Your task to perform on an android device: Open wifi settings Image 0: 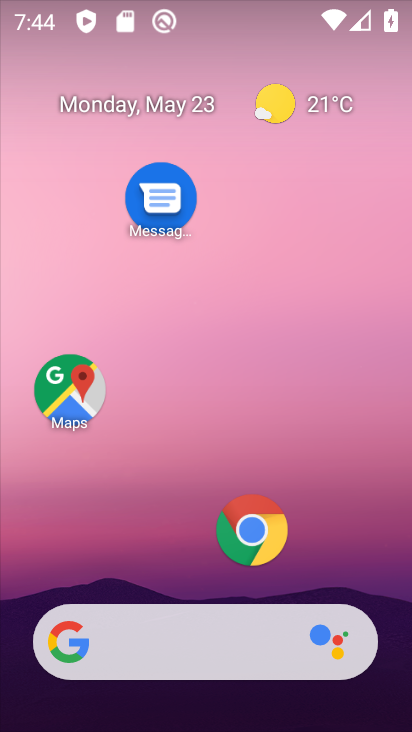
Step 0: drag from (225, 12) to (9, 695)
Your task to perform on an android device: Open wifi settings Image 1: 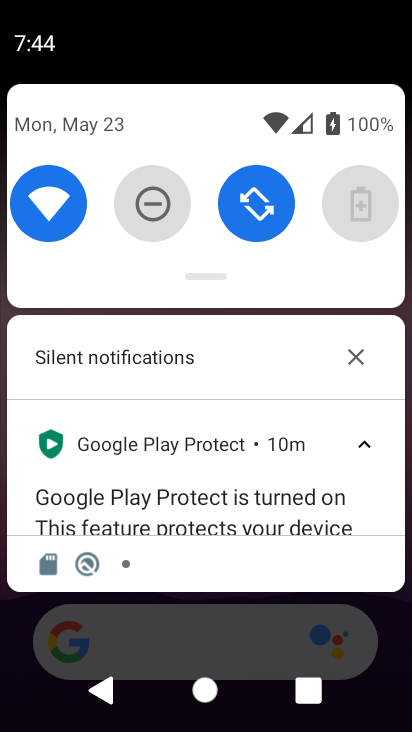
Step 1: click (44, 222)
Your task to perform on an android device: Open wifi settings Image 2: 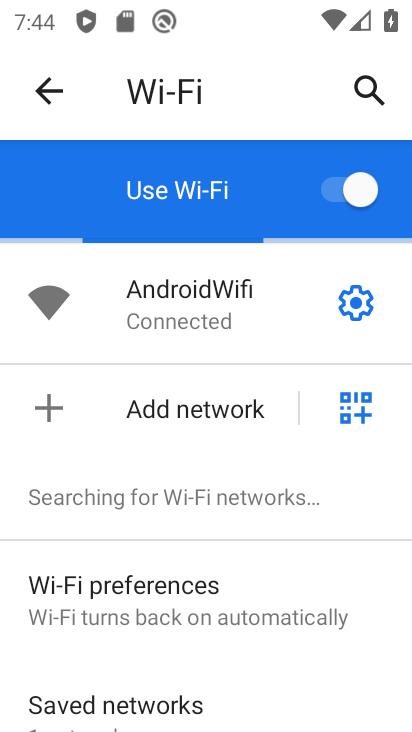
Step 2: task complete